Your task to perform on an android device: toggle pop-ups in chrome Image 0: 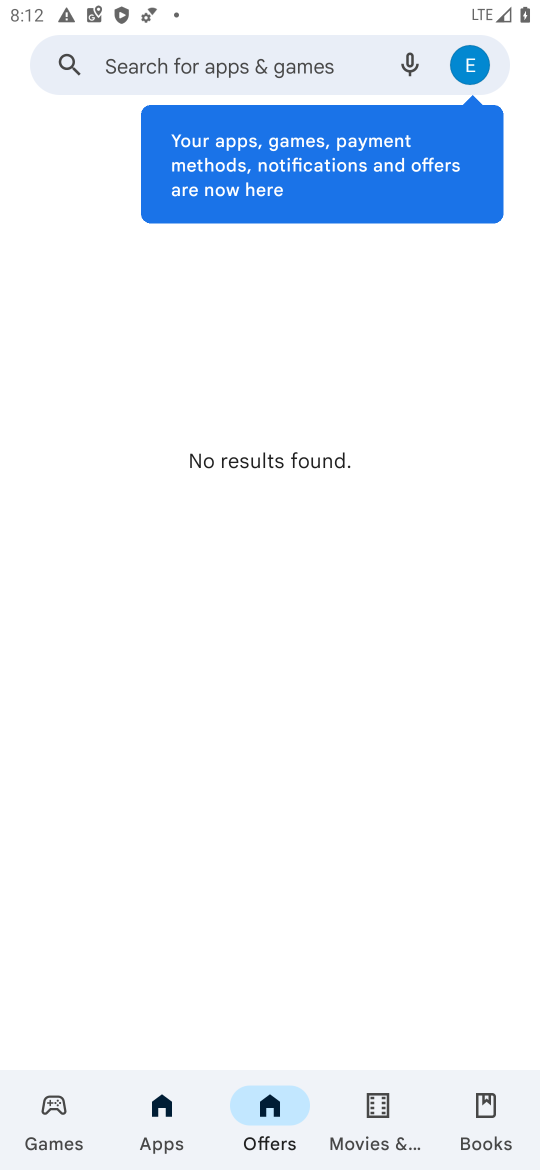
Step 0: press home button
Your task to perform on an android device: toggle pop-ups in chrome Image 1: 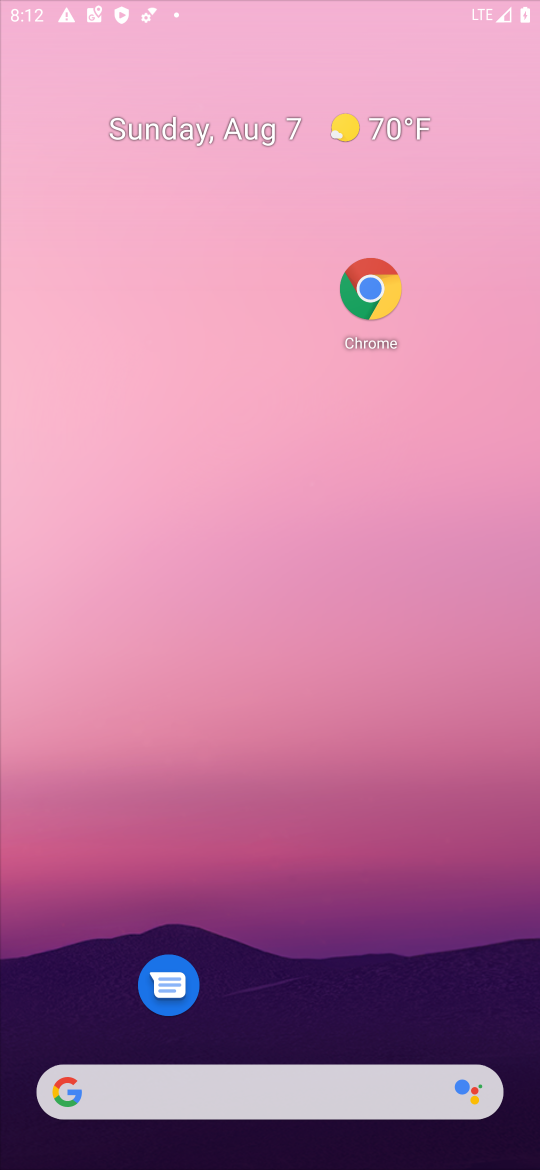
Step 1: drag from (209, 972) to (321, 485)
Your task to perform on an android device: toggle pop-ups in chrome Image 2: 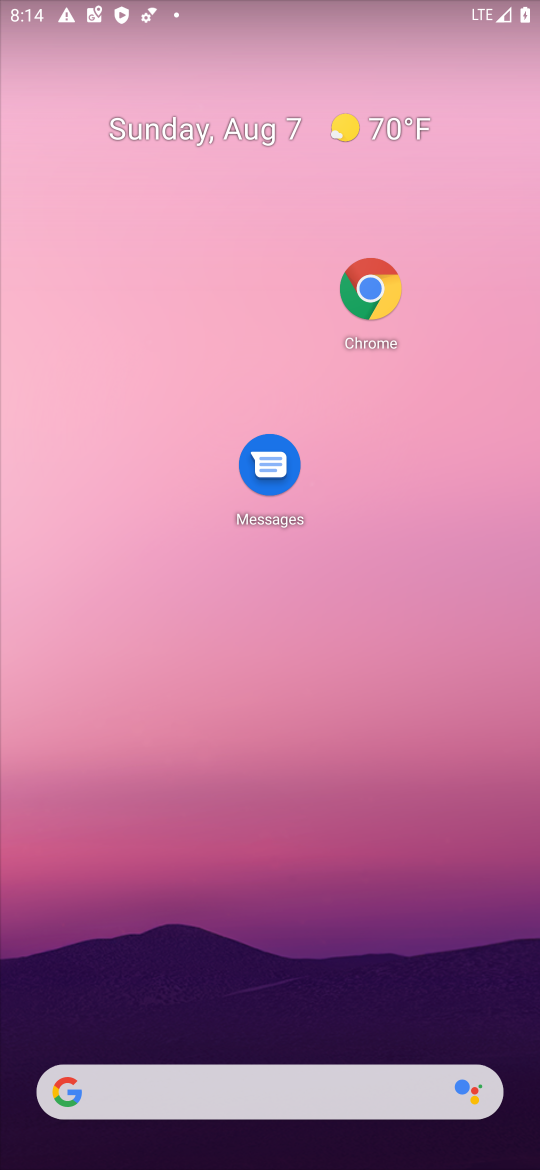
Step 2: drag from (202, 1042) to (375, 175)
Your task to perform on an android device: toggle pop-ups in chrome Image 3: 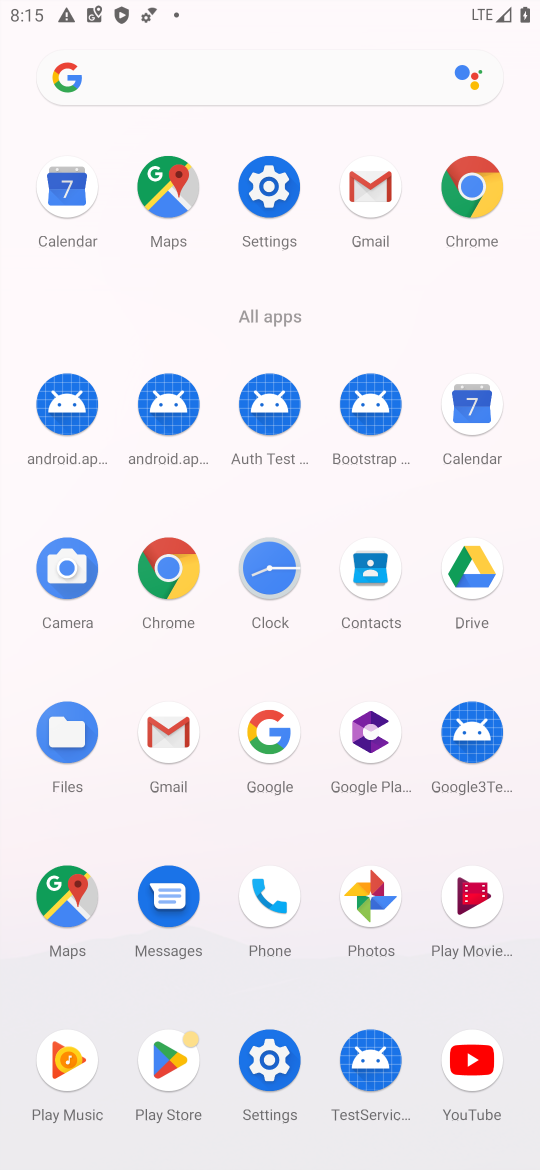
Step 3: click (284, 210)
Your task to perform on an android device: toggle pop-ups in chrome Image 4: 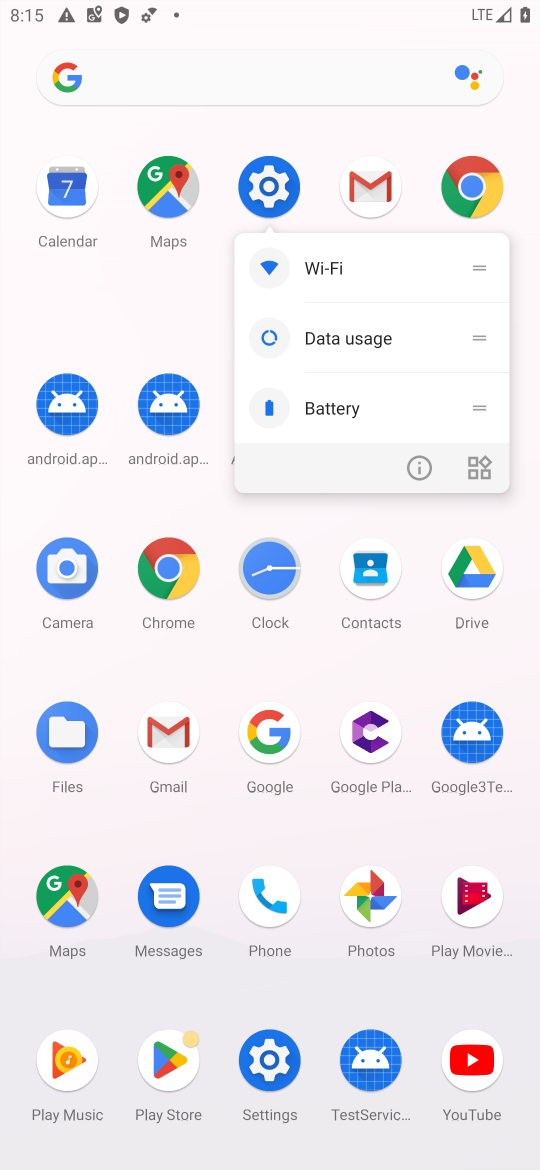
Step 4: press home button
Your task to perform on an android device: toggle pop-ups in chrome Image 5: 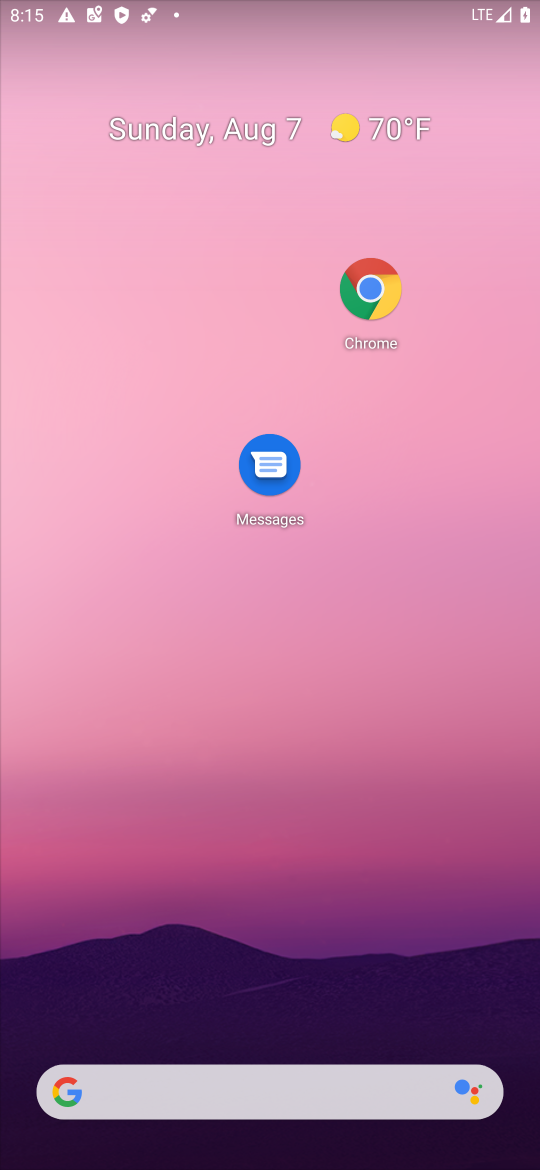
Step 5: drag from (358, 635) to (390, 147)
Your task to perform on an android device: toggle pop-ups in chrome Image 6: 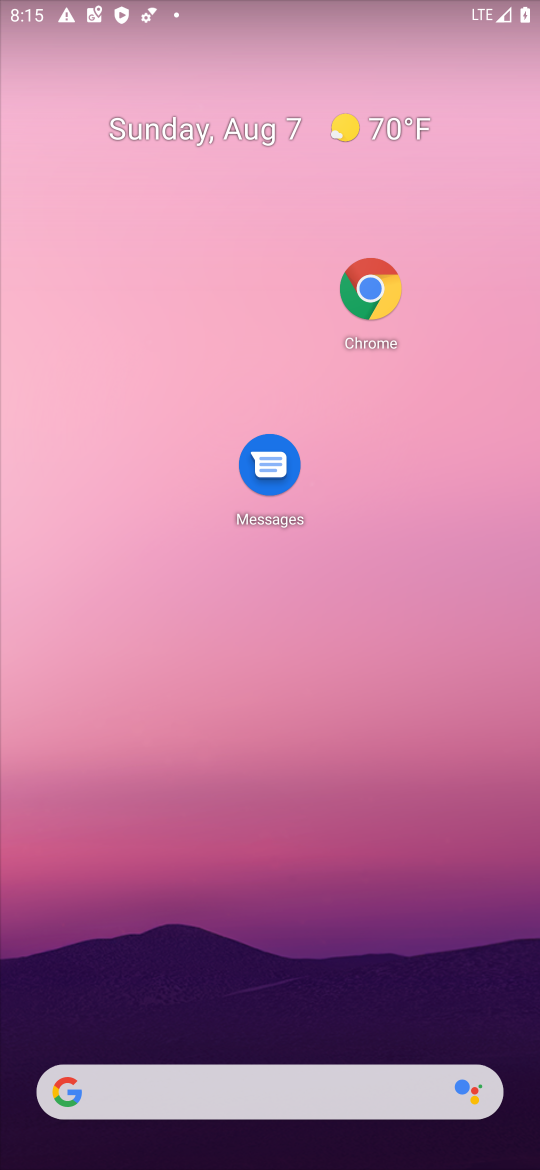
Step 6: click (330, 281)
Your task to perform on an android device: toggle pop-ups in chrome Image 7: 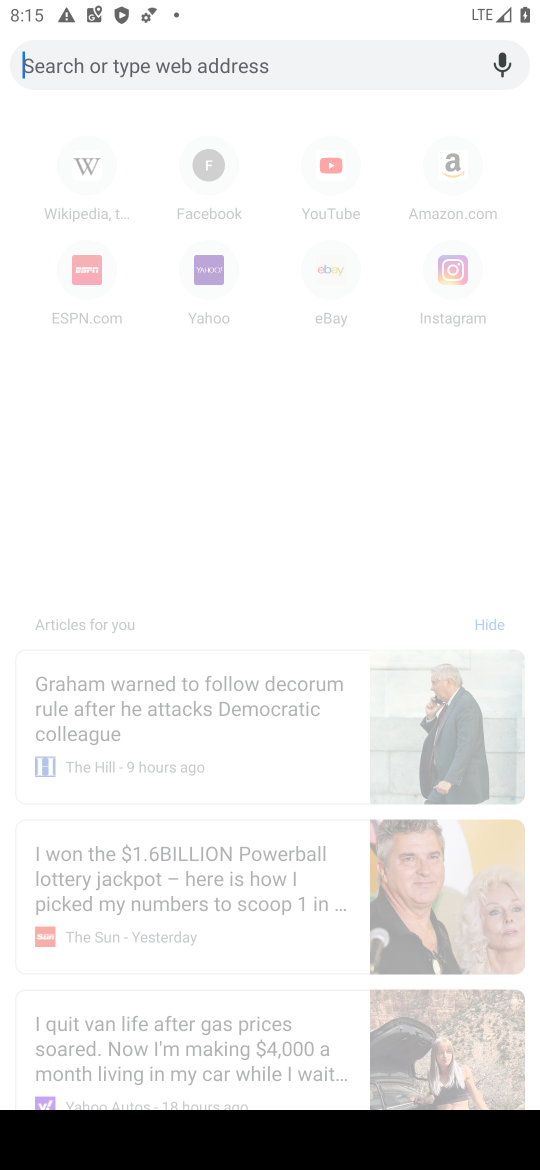
Step 7: click (293, 389)
Your task to perform on an android device: toggle pop-ups in chrome Image 8: 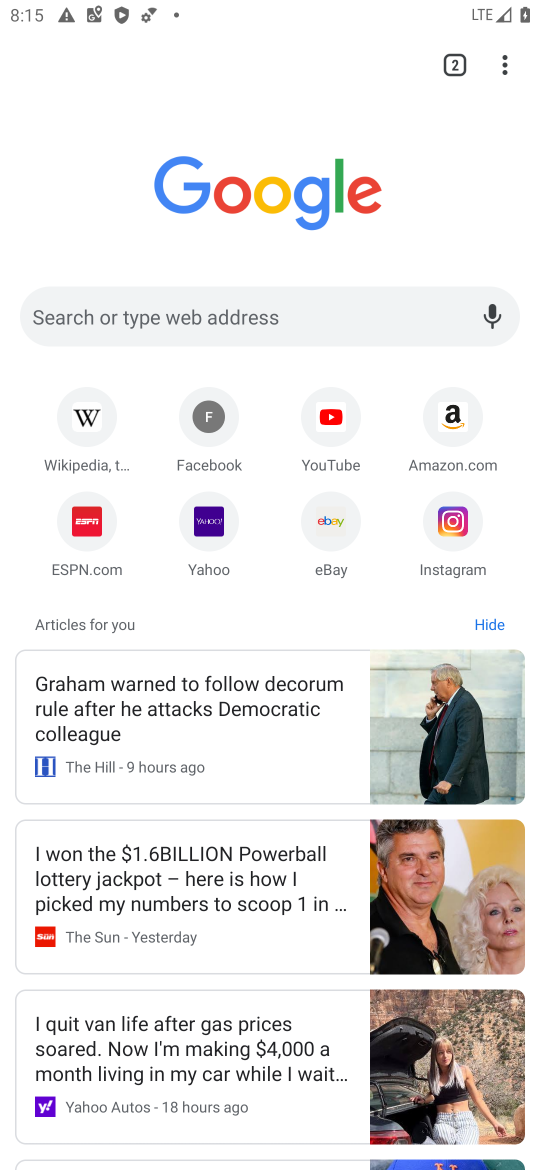
Step 8: click (498, 50)
Your task to perform on an android device: toggle pop-ups in chrome Image 9: 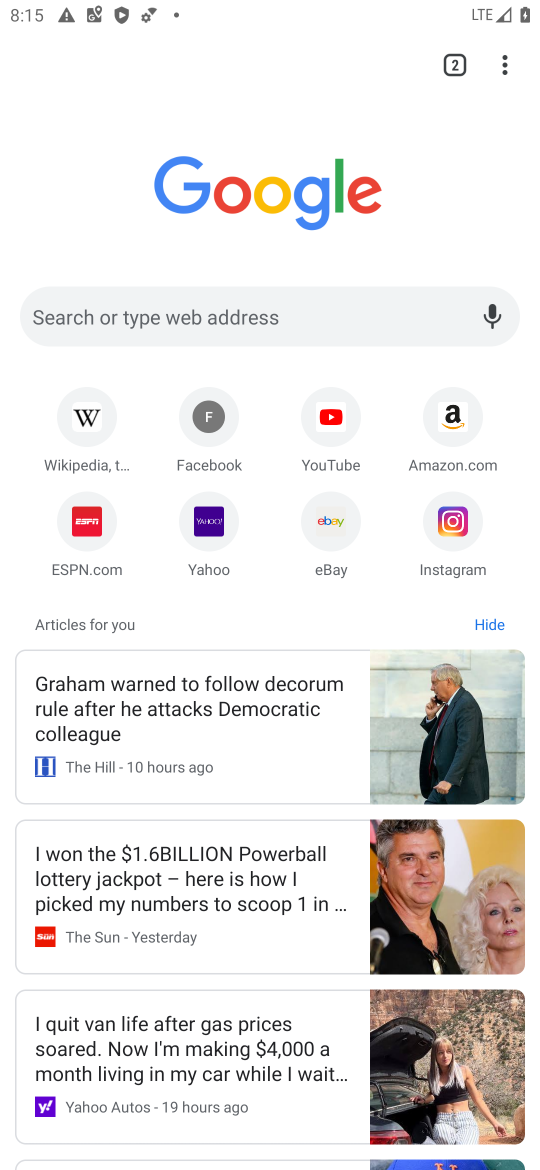
Step 9: click (512, 72)
Your task to perform on an android device: toggle pop-ups in chrome Image 10: 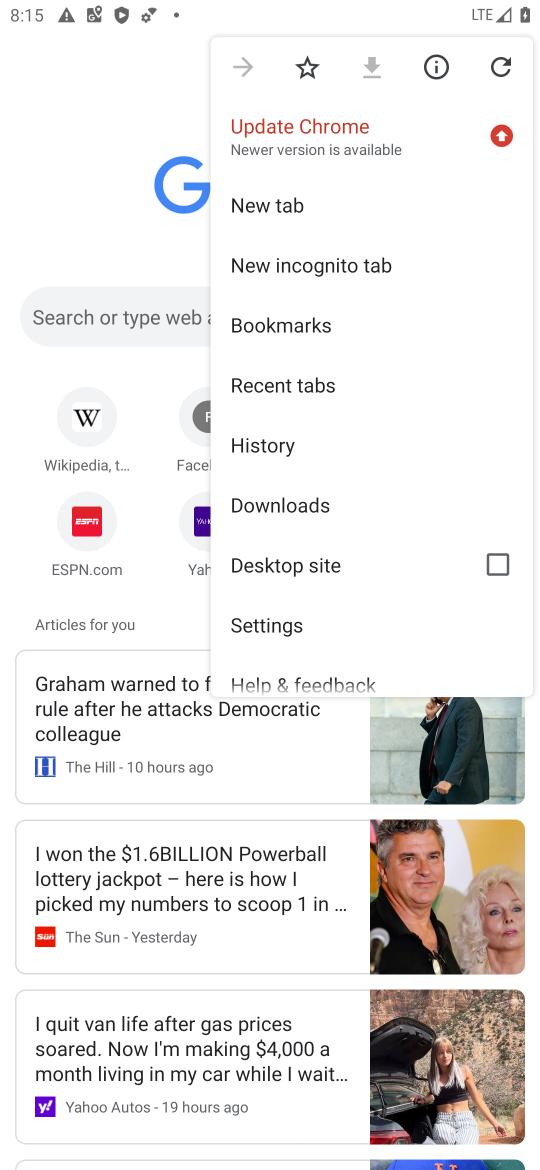
Step 10: click (285, 636)
Your task to perform on an android device: toggle pop-ups in chrome Image 11: 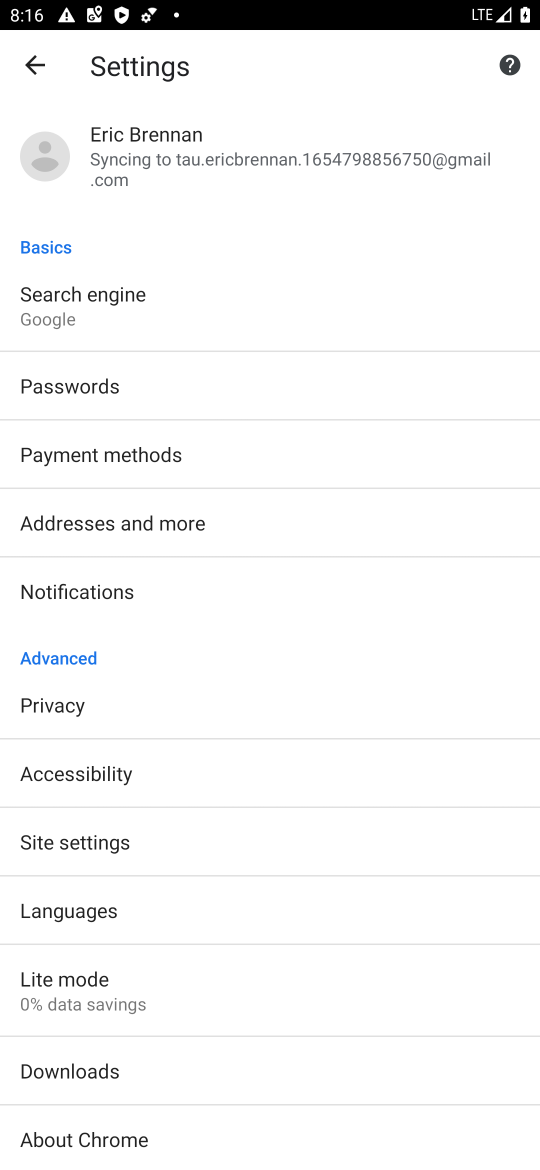
Step 11: click (117, 829)
Your task to perform on an android device: toggle pop-ups in chrome Image 12: 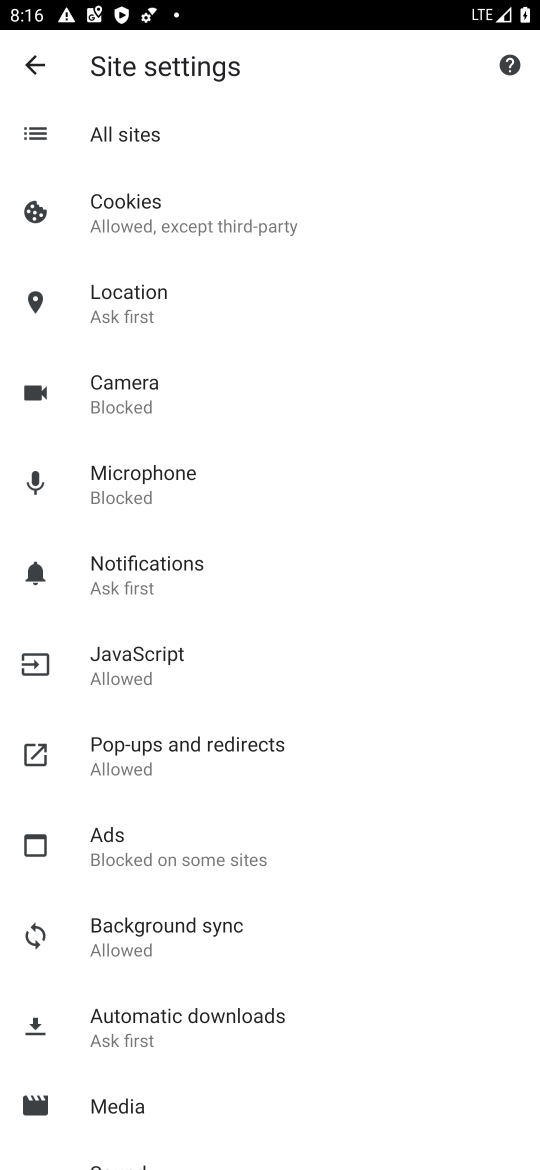
Step 12: drag from (209, 994) to (264, 413)
Your task to perform on an android device: toggle pop-ups in chrome Image 13: 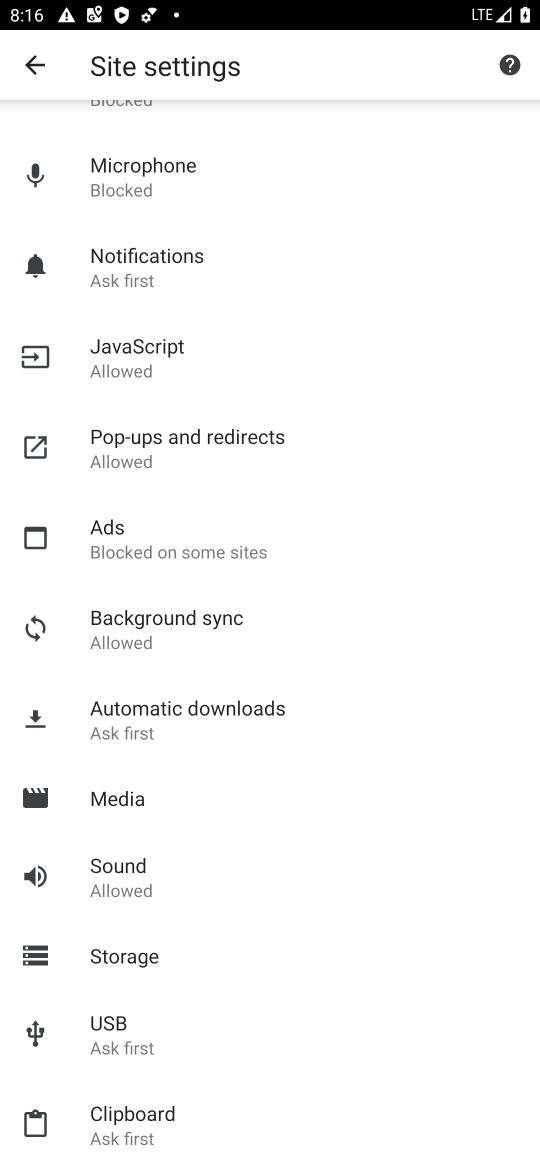
Step 13: click (196, 438)
Your task to perform on an android device: toggle pop-ups in chrome Image 14: 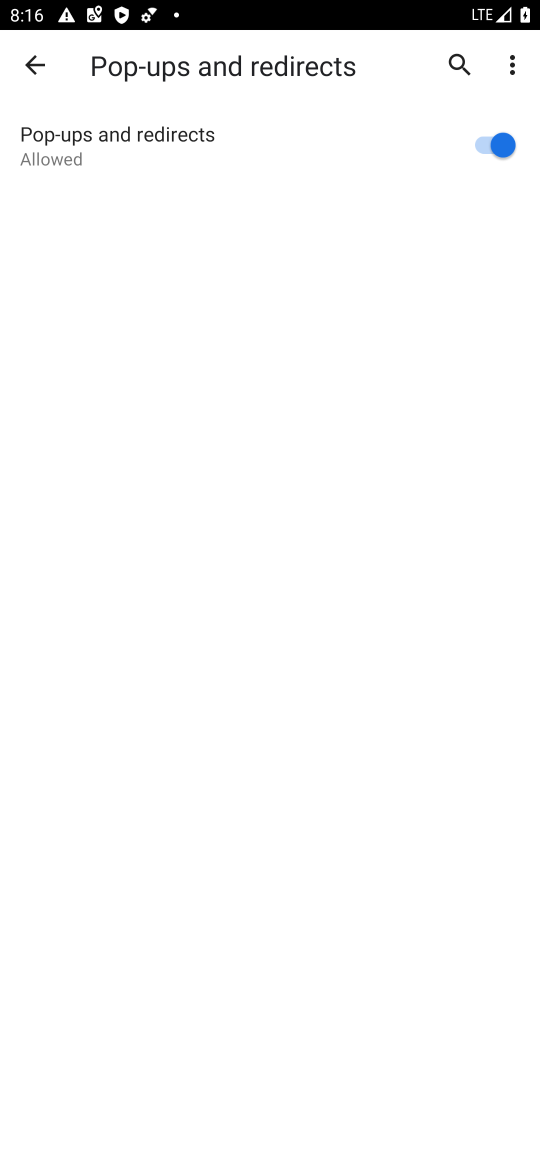
Step 14: click (459, 152)
Your task to perform on an android device: toggle pop-ups in chrome Image 15: 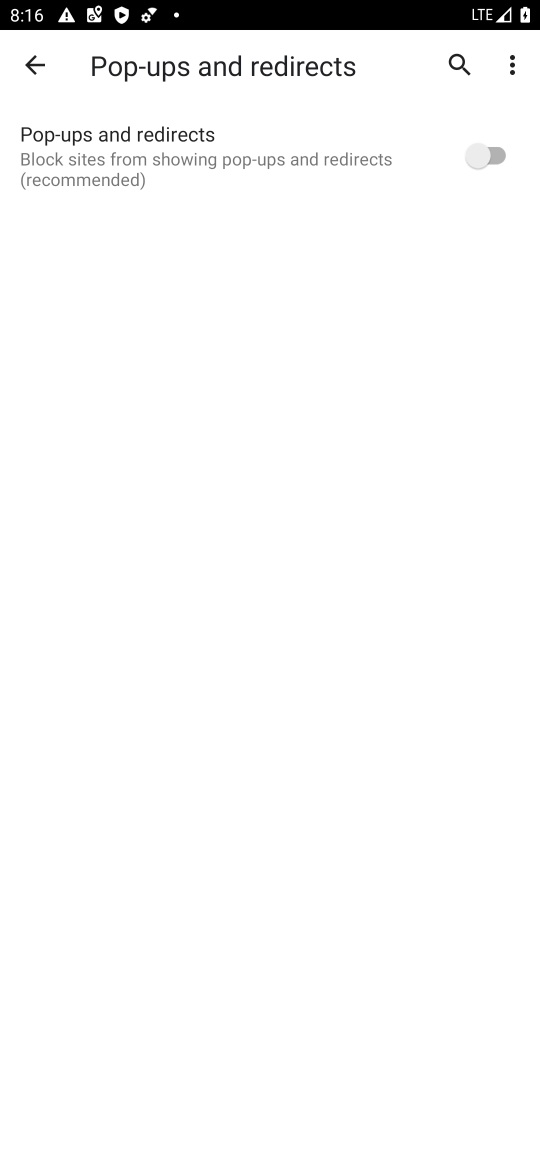
Step 15: task complete